Your task to perform on an android device: snooze an email in the gmail app Image 0: 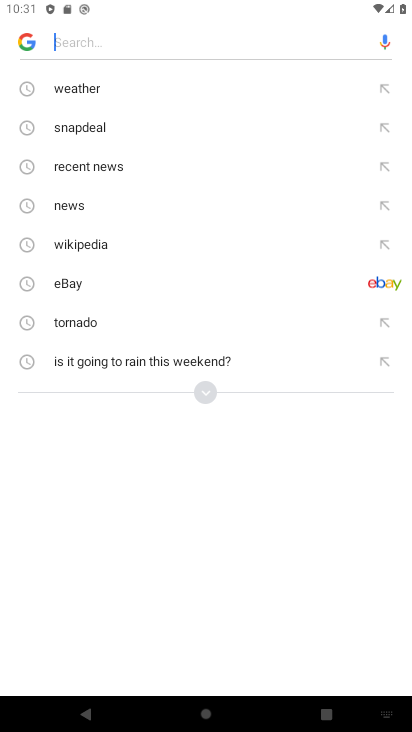
Step 0: press home button
Your task to perform on an android device: snooze an email in the gmail app Image 1: 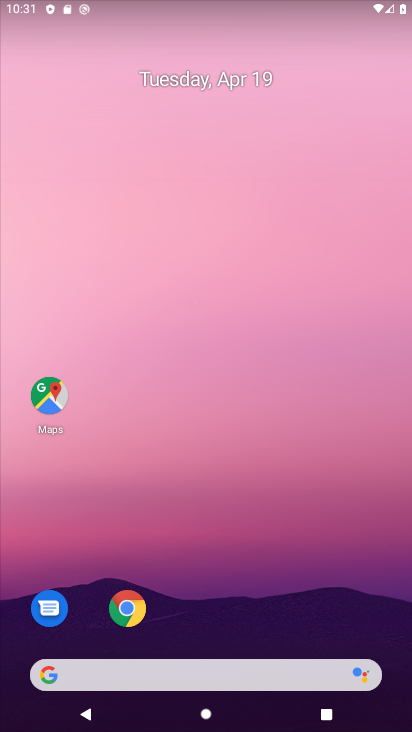
Step 1: drag from (302, 514) to (244, 52)
Your task to perform on an android device: snooze an email in the gmail app Image 2: 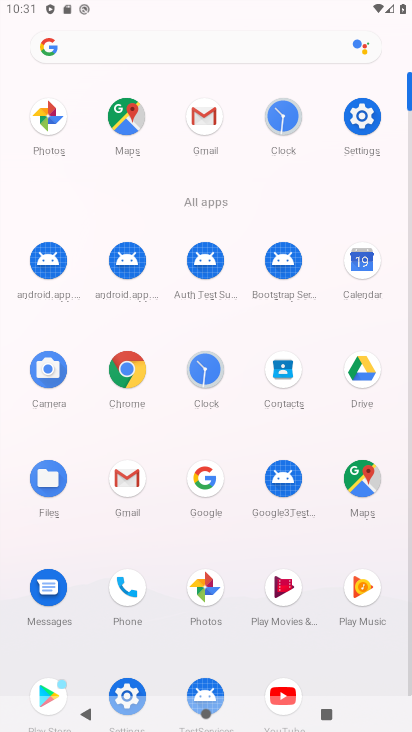
Step 2: click (201, 110)
Your task to perform on an android device: snooze an email in the gmail app Image 3: 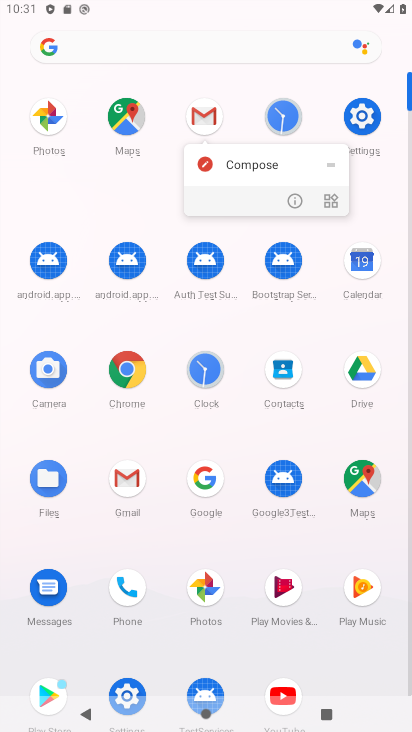
Step 3: click (201, 110)
Your task to perform on an android device: snooze an email in the gmail app Image 4: 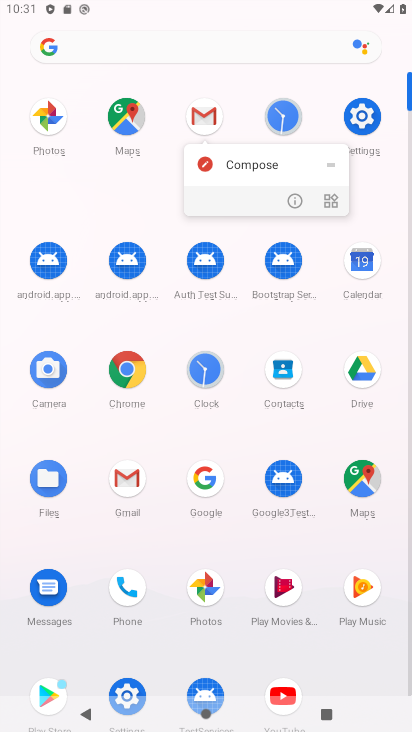
Step 4: click (201, 110)
Your task to perform on an android device: snooze an email in the gmail app Image 5: 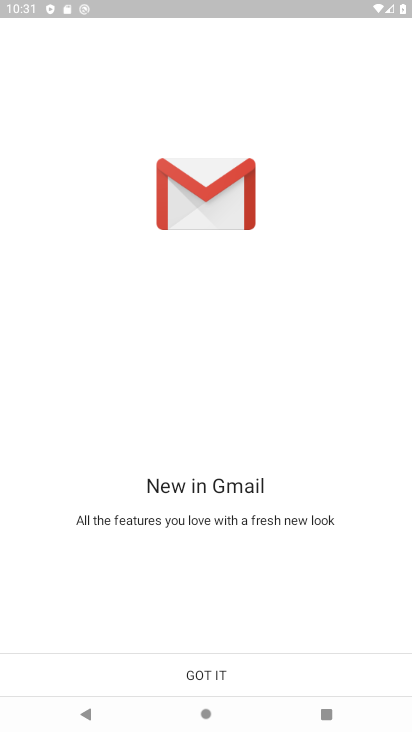
Step 5: click (192, 673)
Your task to perform on an android device: snooze an email in the gmail app Image 6: 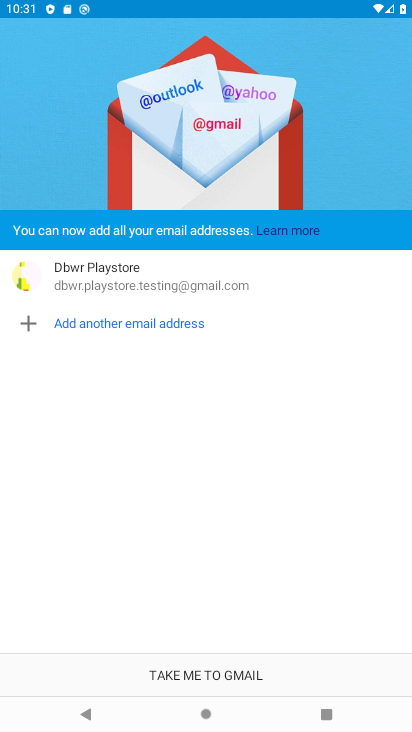
Step 6: click (192, 673)
Your task to perform on an android device: snooze an email in the gmail app Image 7: 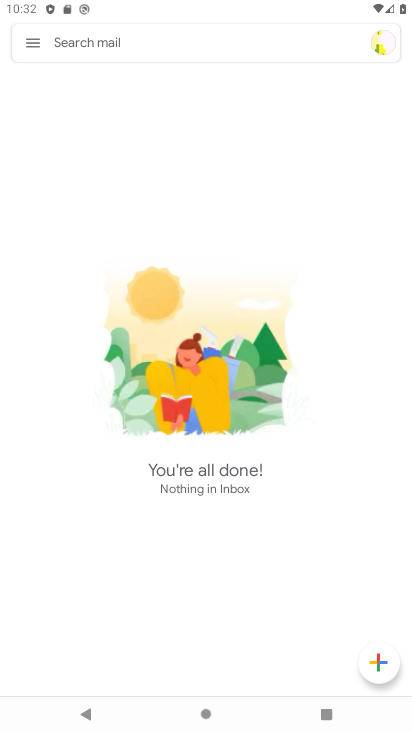
Step 7: task complete